Your task to perform on an android device: set default search engine in the chrome app Image 0: 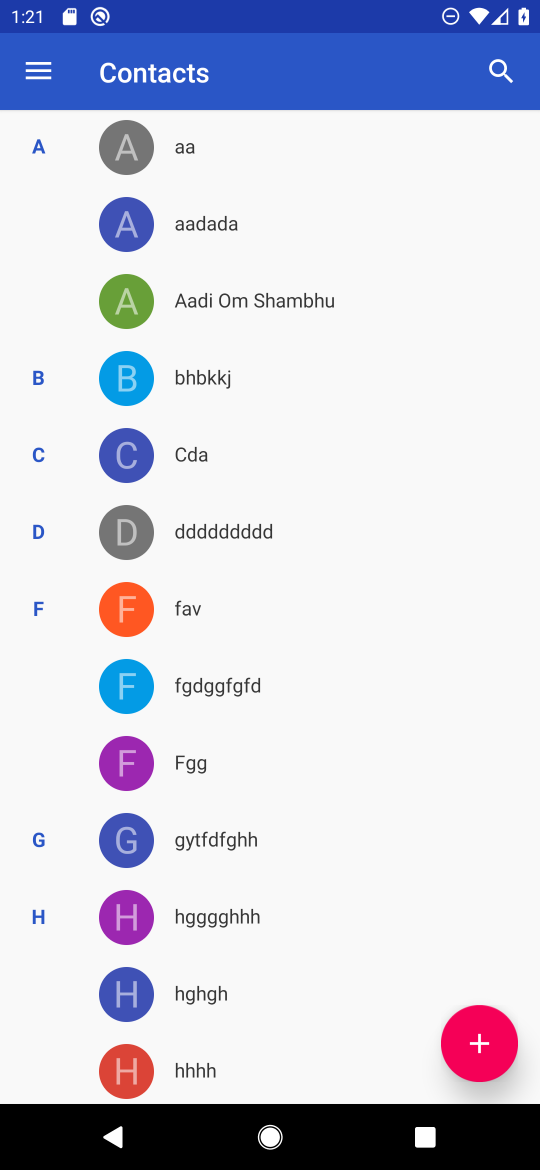
Step 0: press back button
Your task to perform on an android device: set default search engine in the chrome app Image 1: 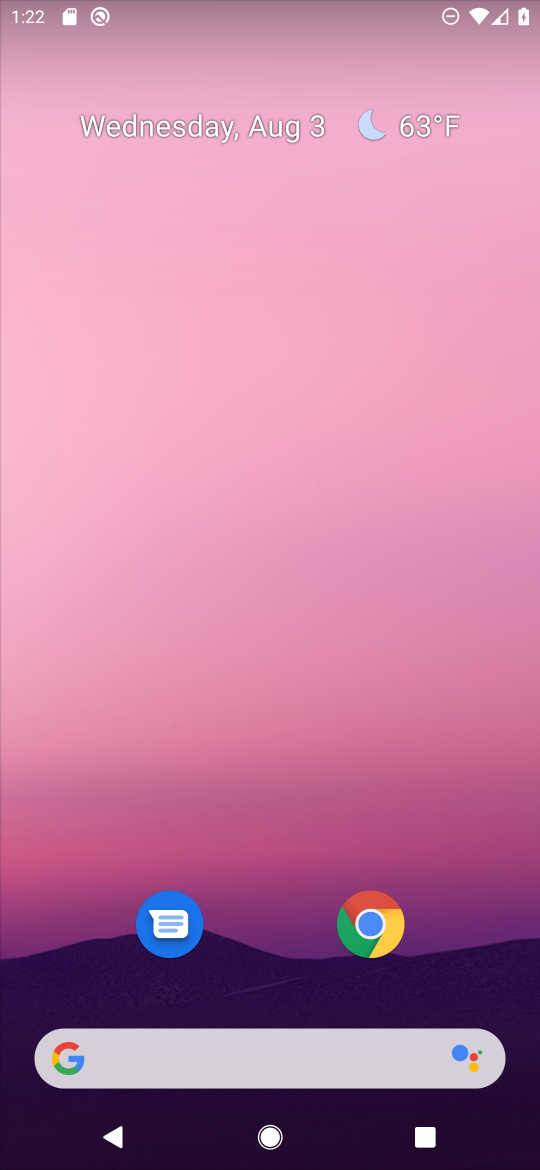
Step 1: click (377, 911)
Your task to perform on an android device: set default search engine in the chrome app Image 2: 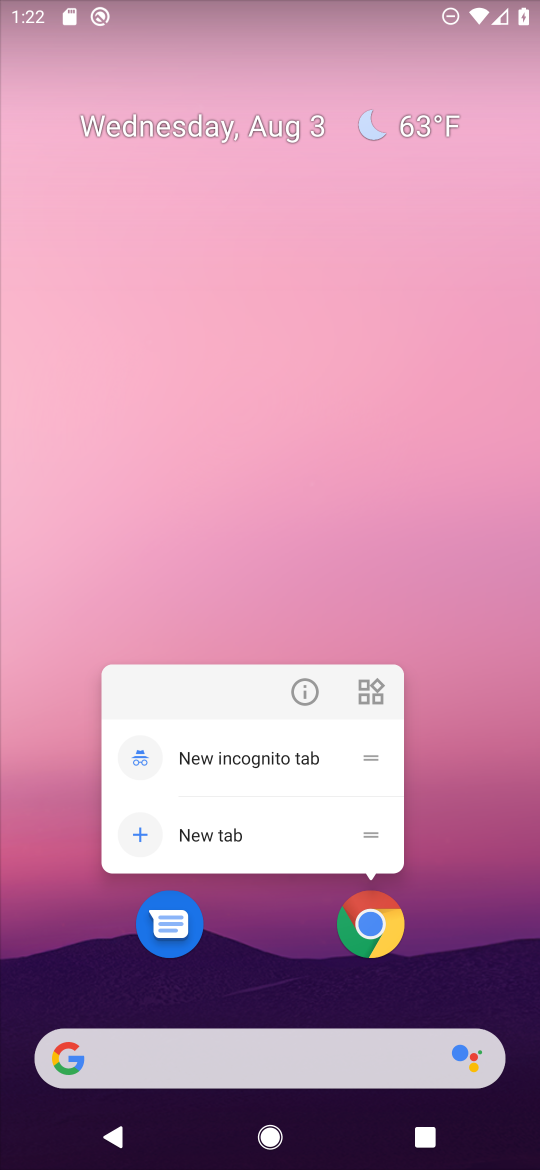
Step 2: click (375, 912)
Your task to perform on an android device: set default search engine in the chrome app Image 3: 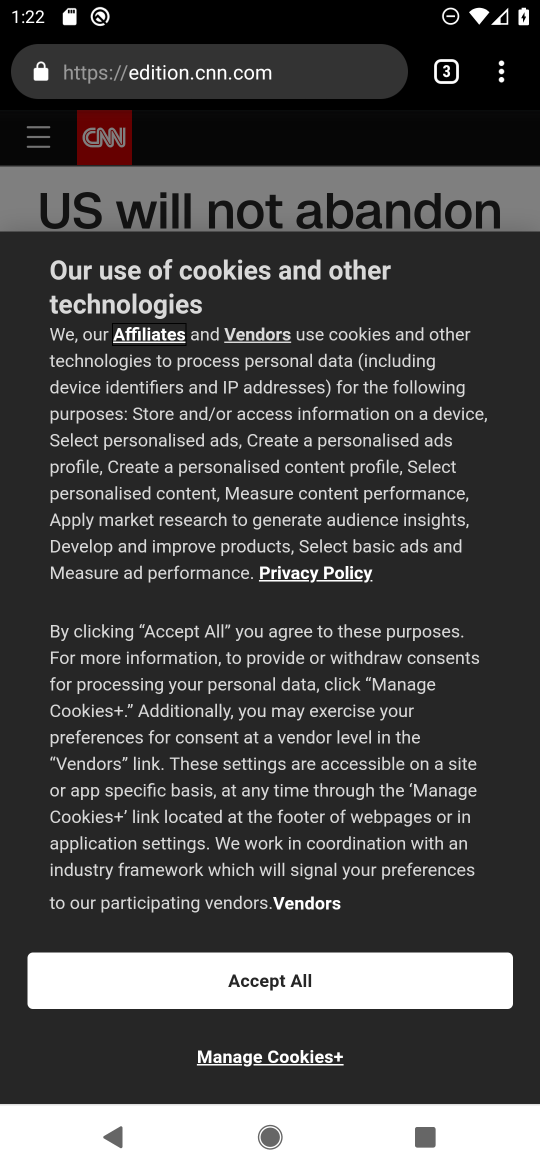
Step 3: drag from (505, 61) to (232, 802)
Your task to perform on an android device: set default search engine in the chrome app Image 4: 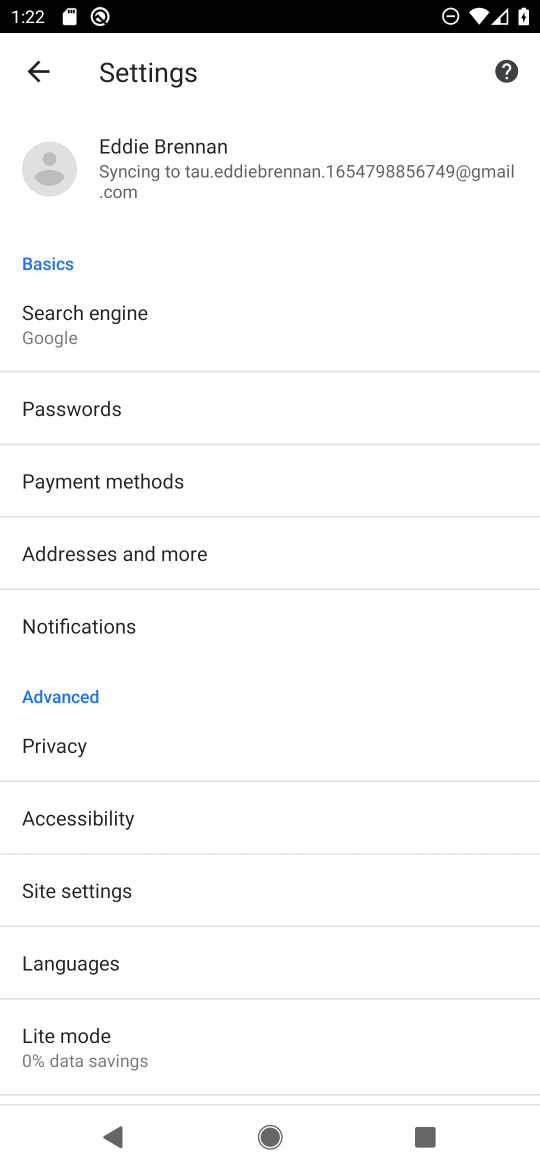
Step 4: click (102, 337)
Your task to perform on an android device: set default search engine in the chrome app Image 5: 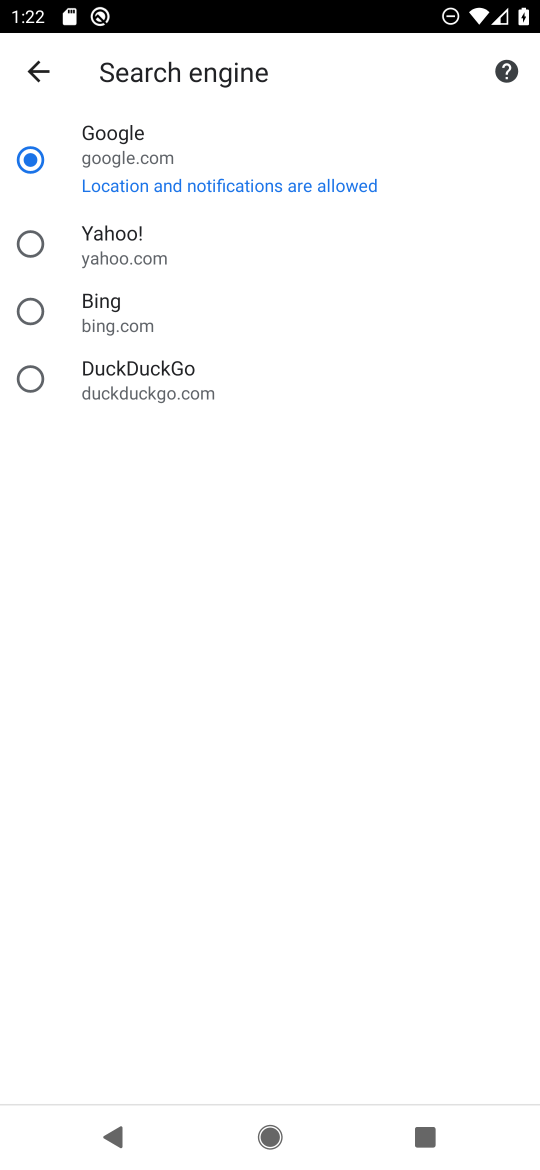
Step 5: click (70, 240)
Your task to perform on an android device: set default search engine in the chrome app Image 6: 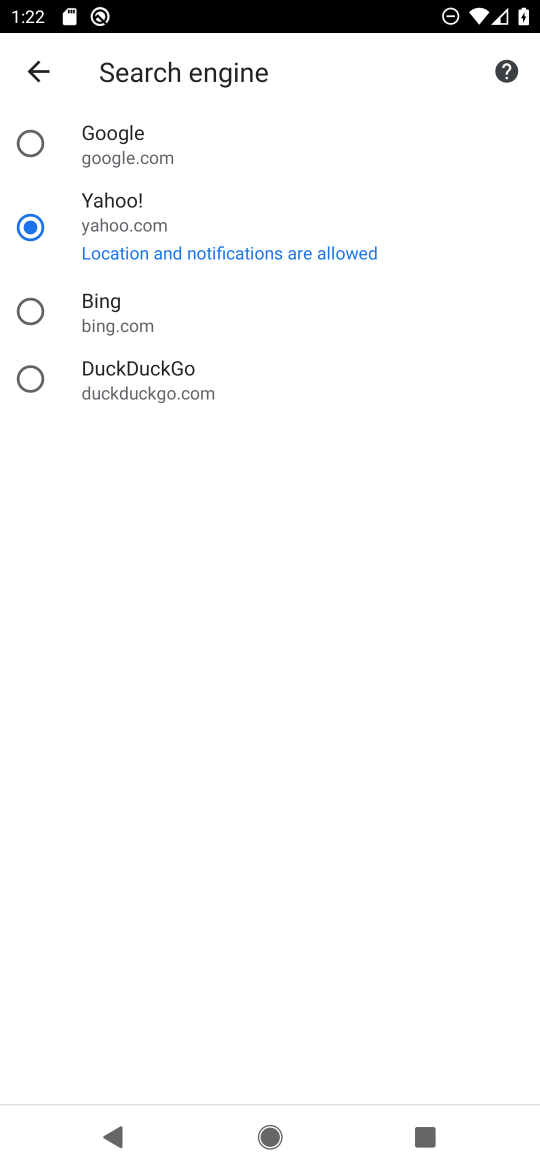
Step 6: click (48, 148)
Your task to perform on an android device: set default search engine in the chrome app Image 7: 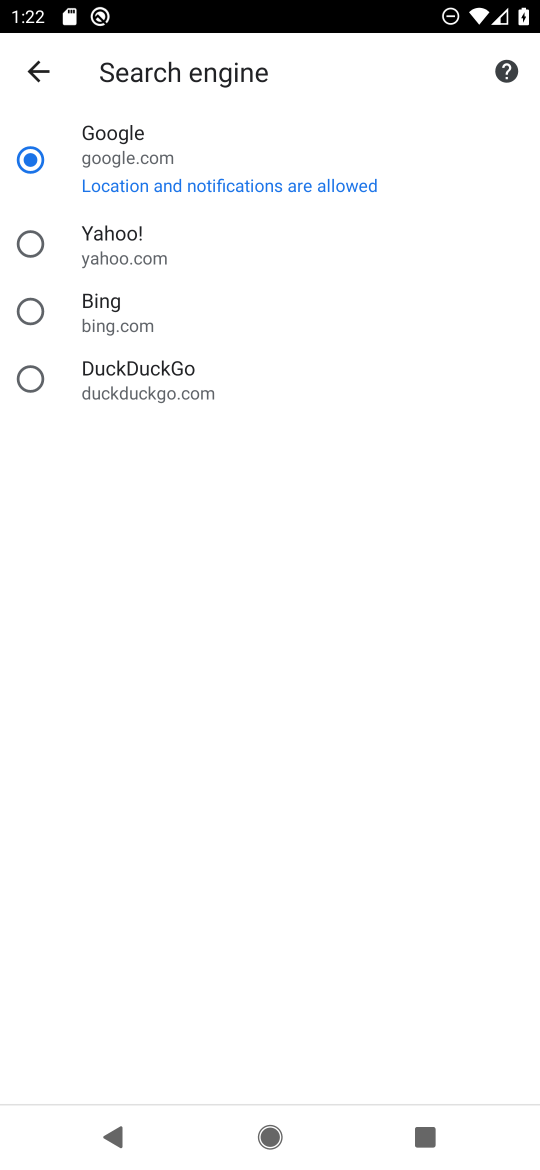
Step 7: task complete